Your task to perform on an android device: Go to ESPN.com Image 0: 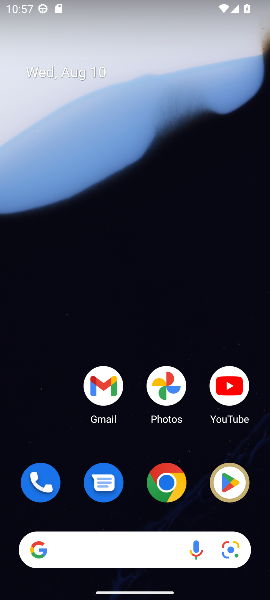
Step 0: click (145, 544)
Your task to perform on an android device: Go to ESPN.com Image 1: 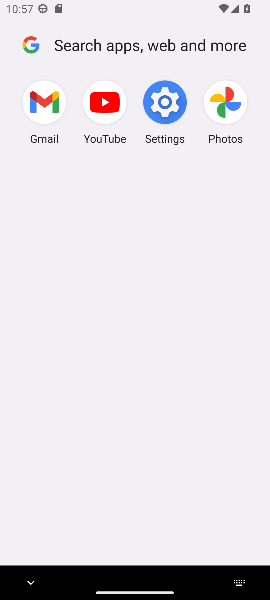
Step 1: type " ESPN.com"
Your task to perform on an android device: Go to ESPN.com Image 2: 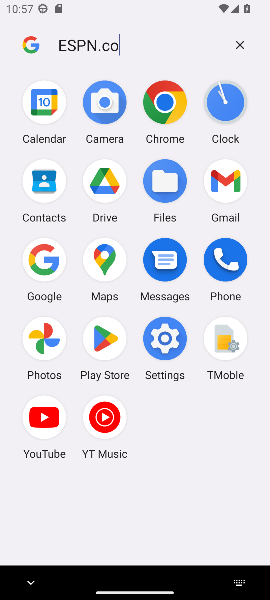
Step 2: type ""
Your task to perform on an android device: Go to ESPN.com Image 3: 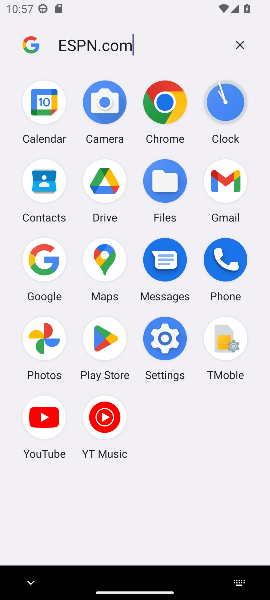
Step 3: press enter
Your task to perform on an android device: Go to ESPN.com Image 4: 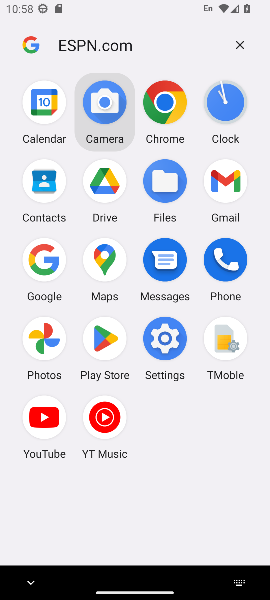
Step 4: click (164, 104)
Your task to perform on an android device: Go to ESPN.com Image 5: 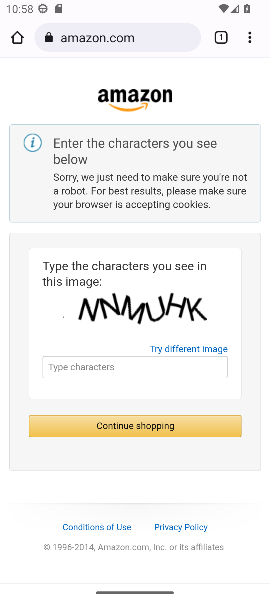
Step 5: click (124, 29)
Your task to perform on an android device: Go to ESPN.com Image 6: 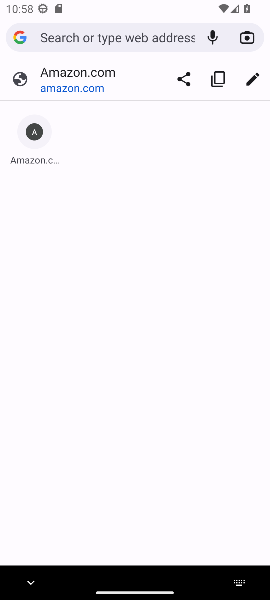
Step 6: type "ESPN.com"
Your task to perform on an android device: Go to ESPN.com Image 7: 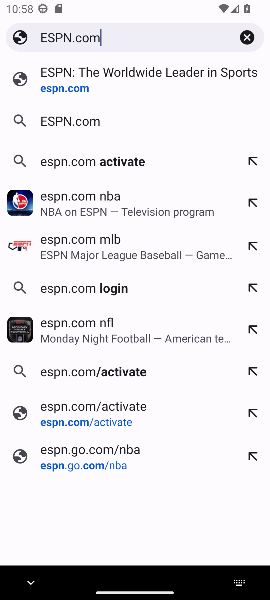
Step 7: press enter
Your task to perform on an android device: Go to ESPN.com Image 8: 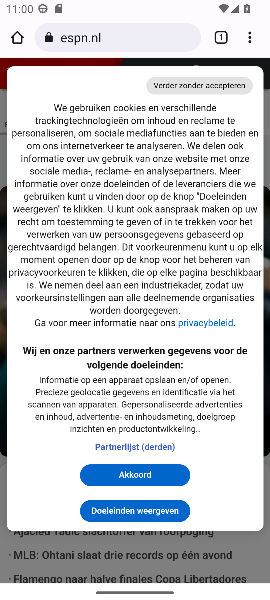
Step 8: click (155, 474)
Your task to perform on an android device: Go to ESPN.com Image 9: 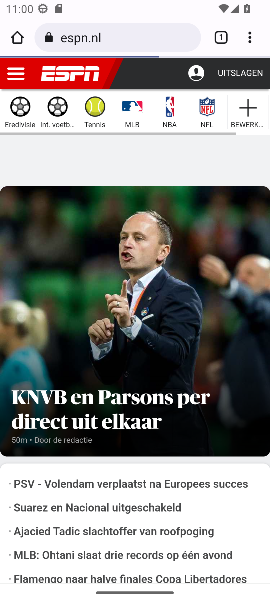
Step 9: task complete